Your task to perform on an android device: change the clock display to show seconds Image 0: 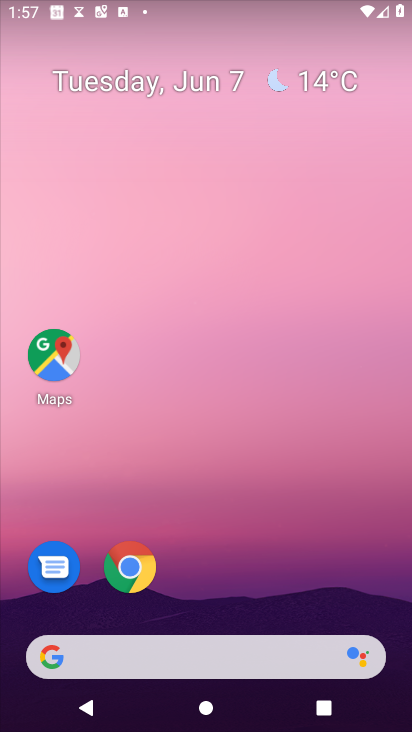
Step 0: drag from (330, 644) to (342, 73)
Your task to perform on an android device: change the clock display to show seconds Image 1: 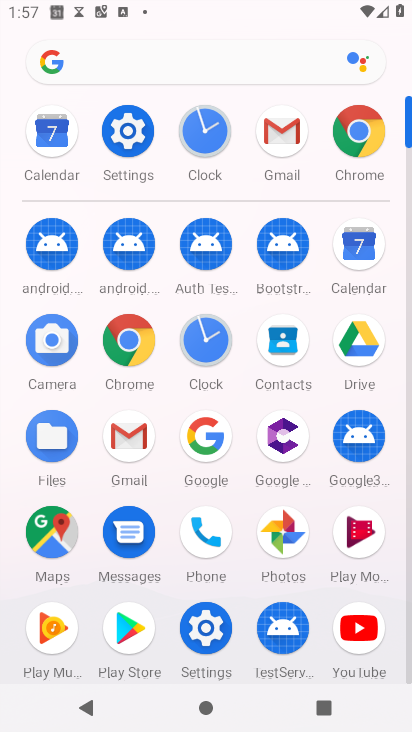
Step 1: click (219, 349)
Your task to perform on an android device: change the clock display to show seconds Image 2: 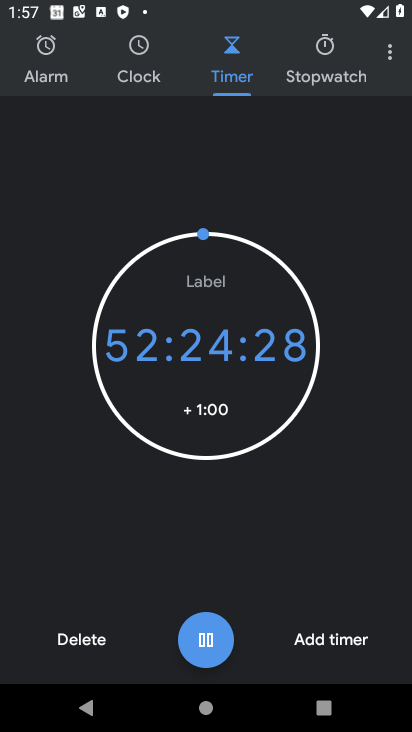
Step 2: click (389, 55)
Your task to perform on an android device: change the clock display to show seconds Image 3: 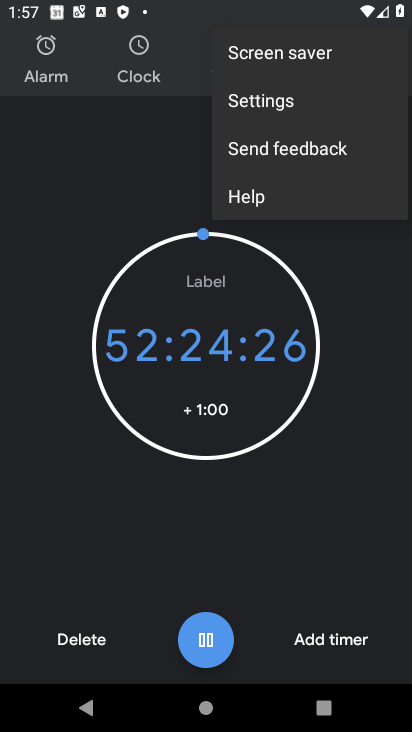
Step 3: click (344, 107)
Your task to perform on an android device: change the clock display to show seconds Image 4: 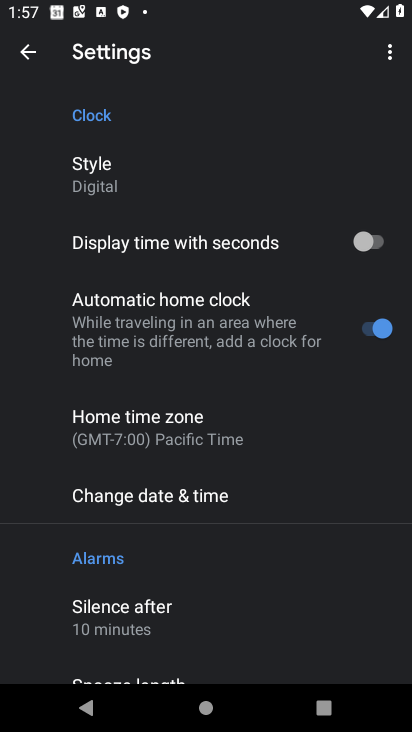
Step 4: click (374, 241)
Your task to perform on an android device: change the clock display to show seconds Image 5: 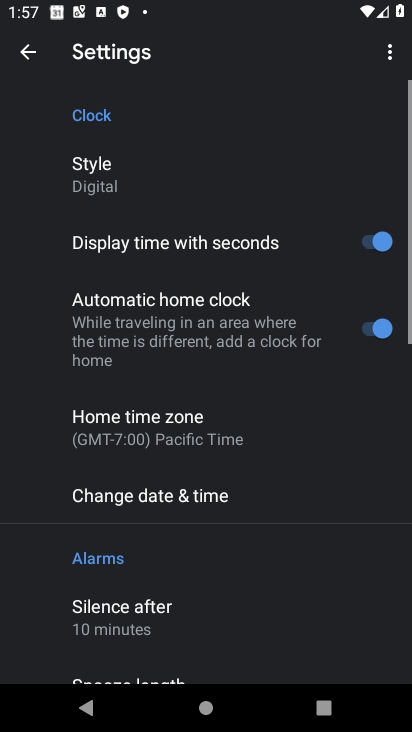
Step 5: task complete